Your task to perform on an android device: Go to CNN.com Image 0: 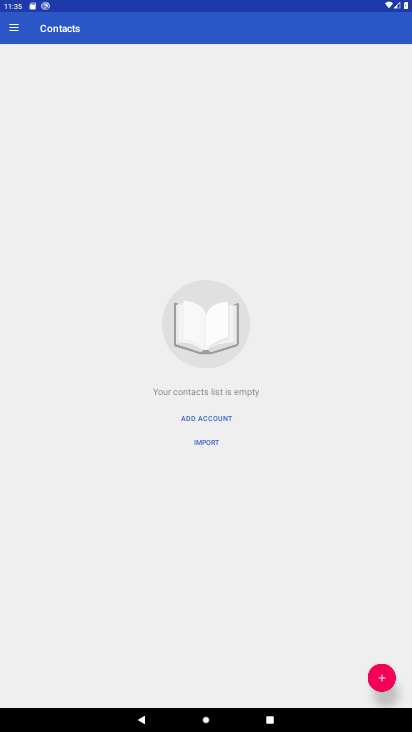
Step 0: press home button
Your task to perform on an android device: Go to CNN.com Image 1: 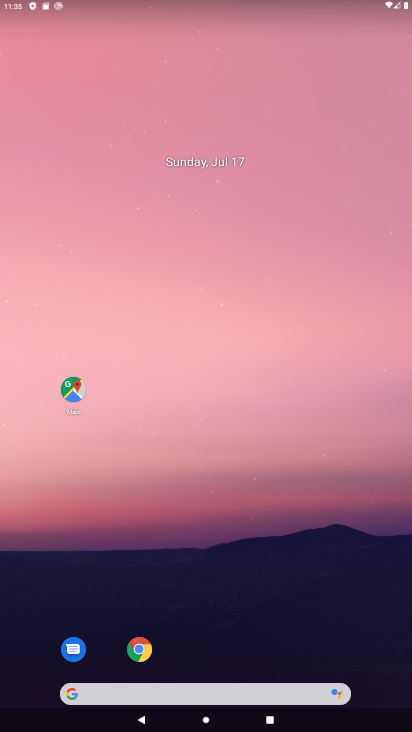
Step 1: click (144, 690)
Your task to perform on an android device: Go to CNN.com Image 2: 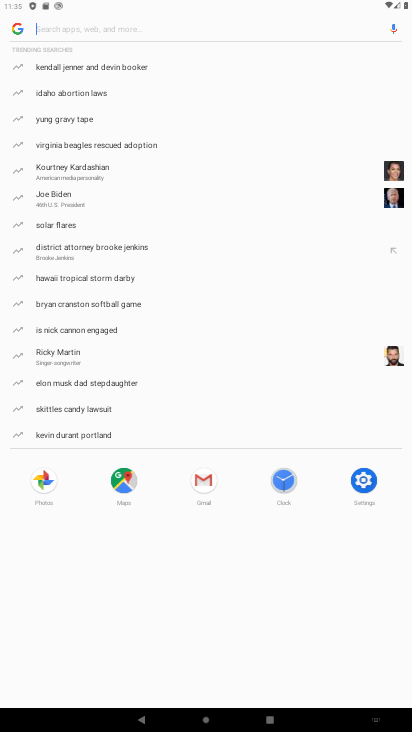
Step 2: type " CNN.com"
Your task to perform on an android device: Go to CNN.com Image 3: 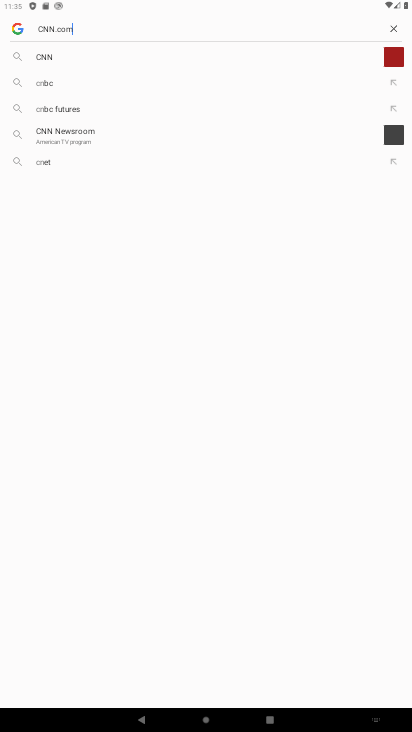
Step 3: type ""
Your task to perform on an android device: Go to CNN.com Image 4: 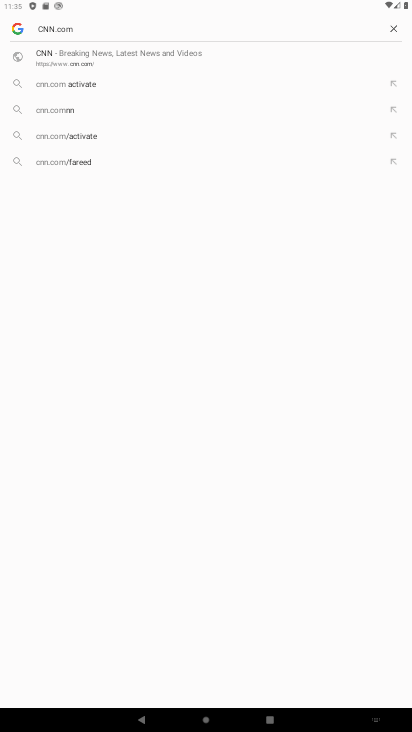
Step 4: type ""
Your task to perform on an android device: Go to CNN.com Image 5: 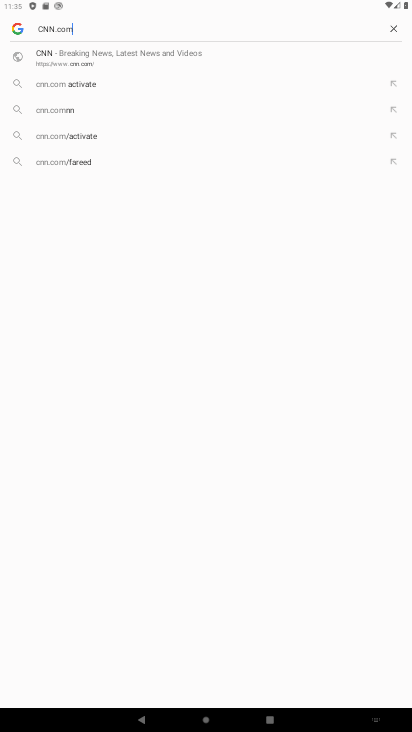
Step 5: type ""
Your task to perform on an android device: Go to CNN.com Image 6: 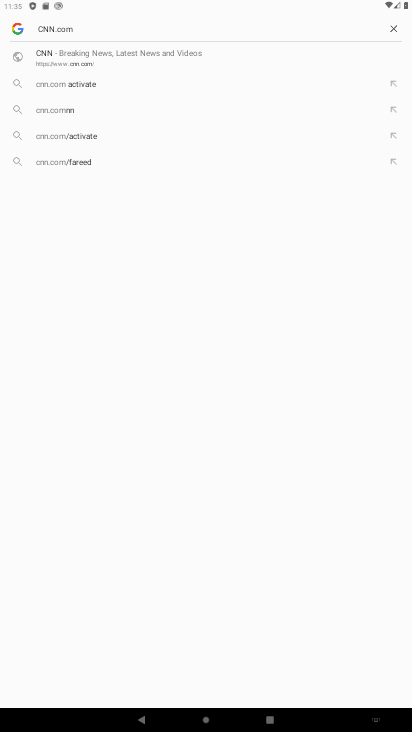
Step 6: task complete